Your task to perform on an android device: turn vacation reply on in the gmail app Image 0: 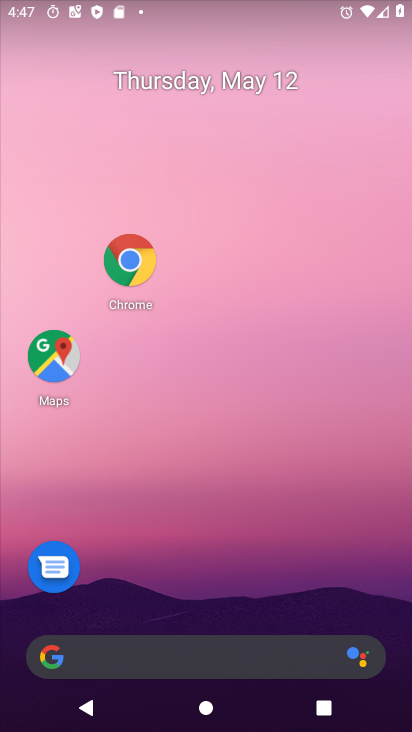
Step 0: drag from (215, 644) to (209, 272)
Your task to perform on an android device: turn vacation reply on in the gmail app Image 1: 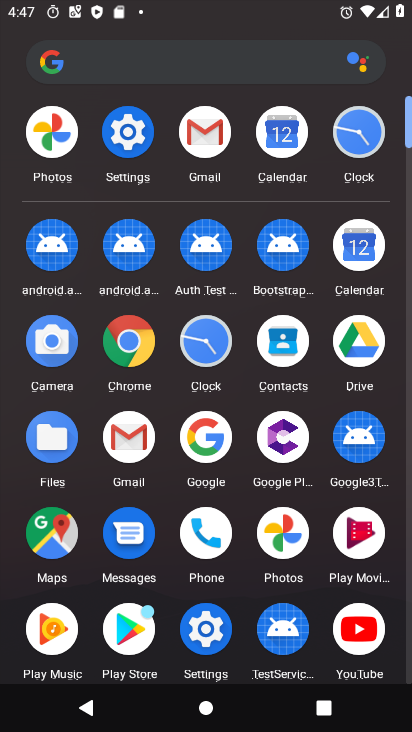
Step 1: click (116, 450)
Your task to perform on an android device: turn vacation reply on in the gmail app Image 2: 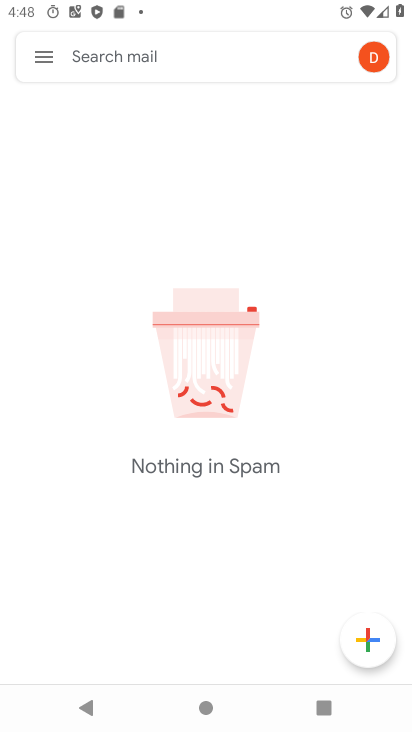
Step 2: click (50, 64)
Your task to perform on an android device: turn vacation reply on in the gmail app Image 3: 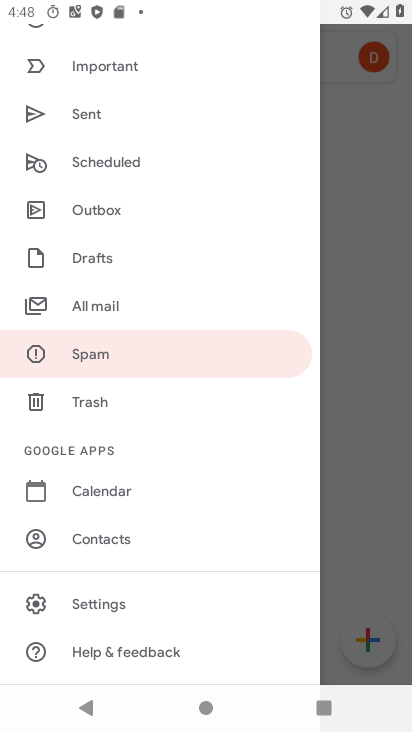
Step 3: click (103, 610)
Your task to perform on an android device: turn vacation reply on in the gmail app Image 4: 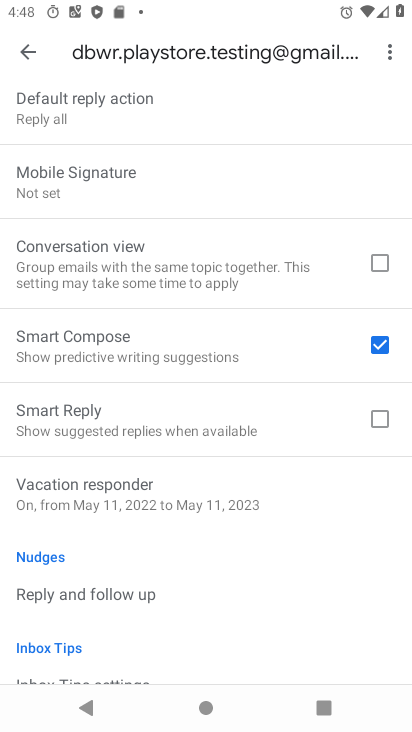
Step 4: click (106, 496)
Your task to perform on an android device: turn vacation reply on in the gmail app Image 5: 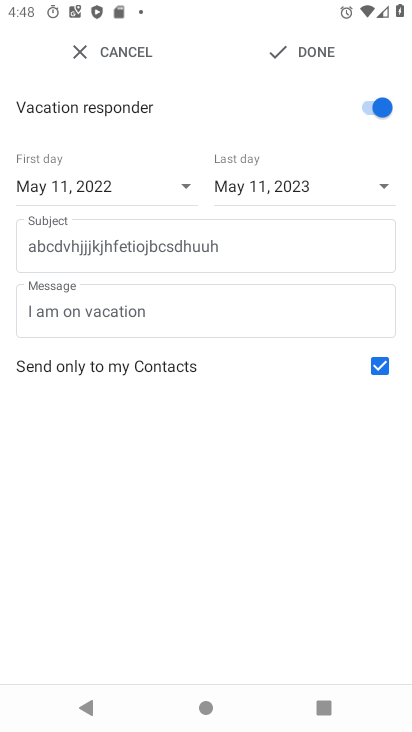
Step 5: task complete